Your task to perform on an android device: turn off location Image 0: 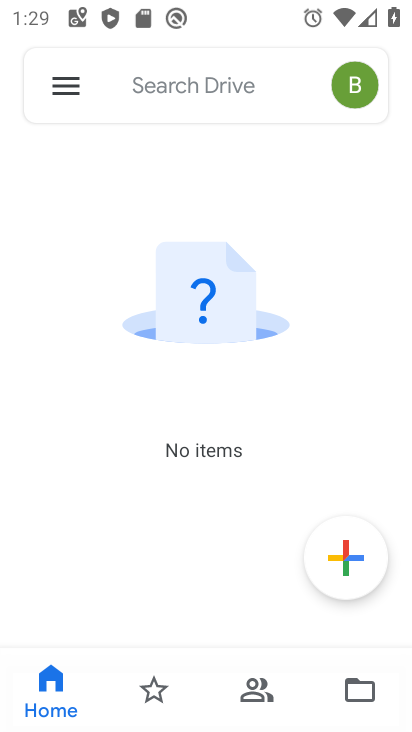
Step 0: press home button
Your task to perform on an android device: turn off location Image 1: 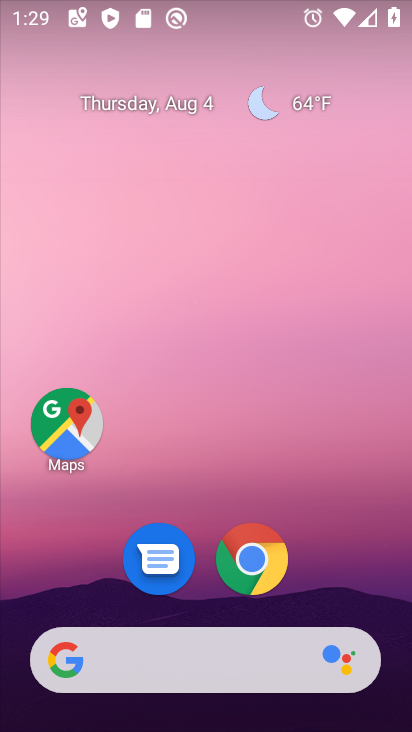
Step 1: drag from (153, 670) to (199, 78)
Your task to perform on an android device: turn off location Image 2: 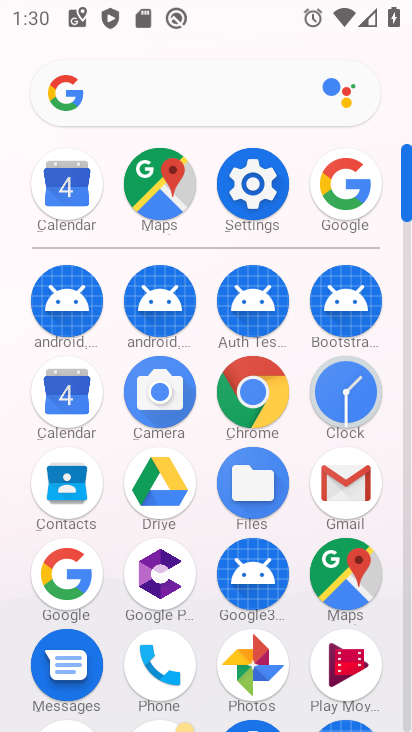
Step 2: click (252, 184)
Your task to perform on an android device: turn off location Image 3: 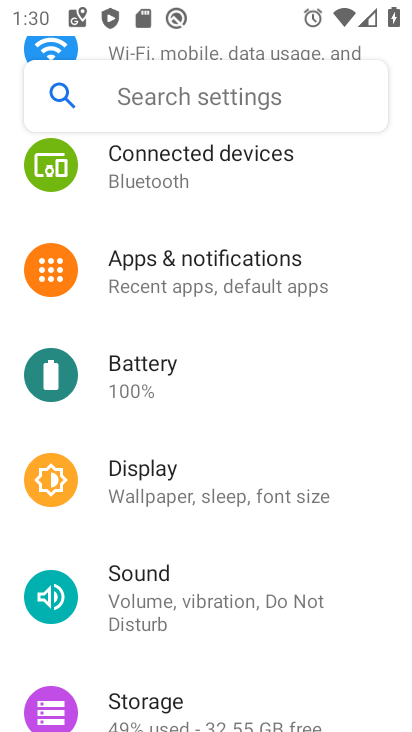
Step 3: drag from (203, 556) to (245, 399)
Your task to perform on an android device: turn off location Image 4: 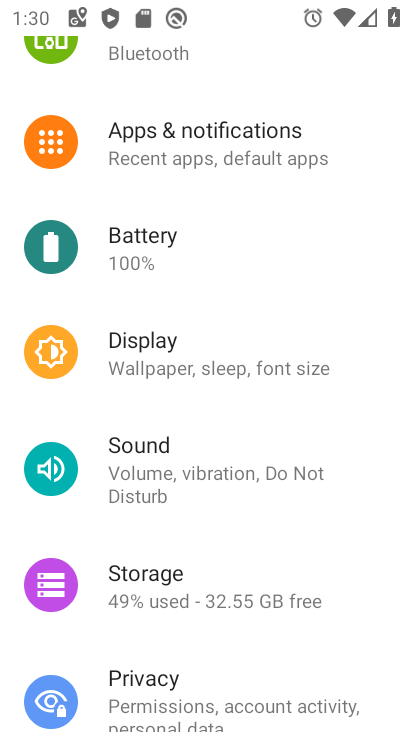
Step 4: drag from (236, 644) to (282, 510)
Your task to perform on an android device: turn off location Image 5: 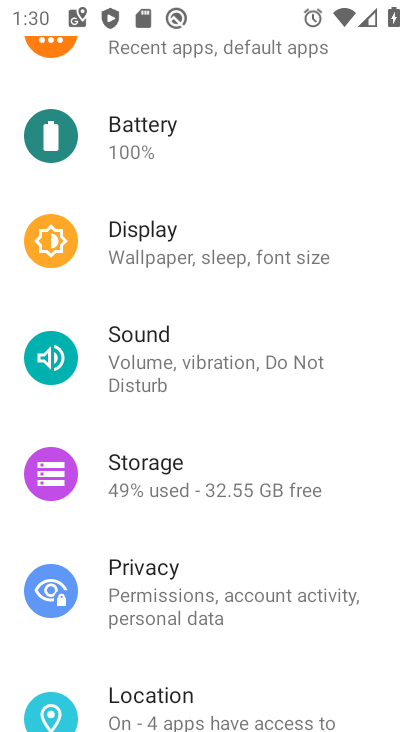
Step 5: drag from (243, 677) to (348, 474)
Your task to perform on an android device: turn off location Image 6: 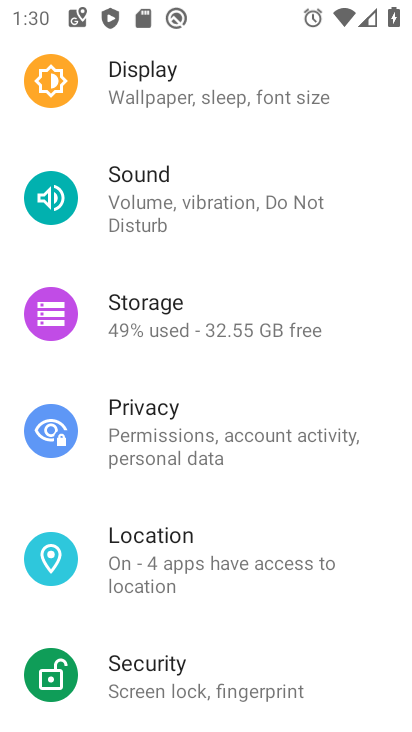
Step 6: click (264, 566)
Your task to perform on an android device: turn off location Image 7: 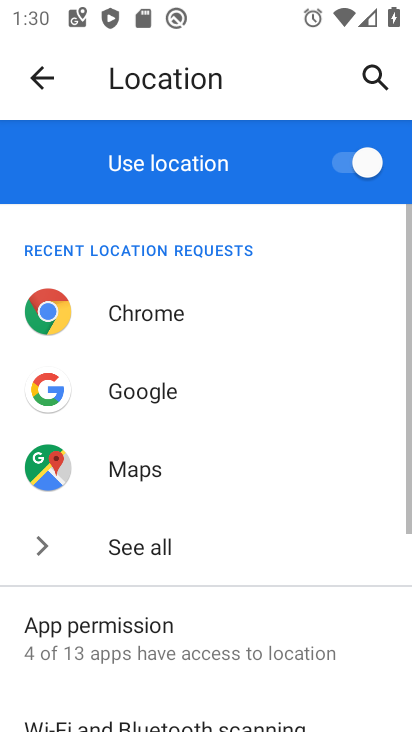
Step 7: click (347, 168)
Your task to perform on an android device: turn off location Image 8: 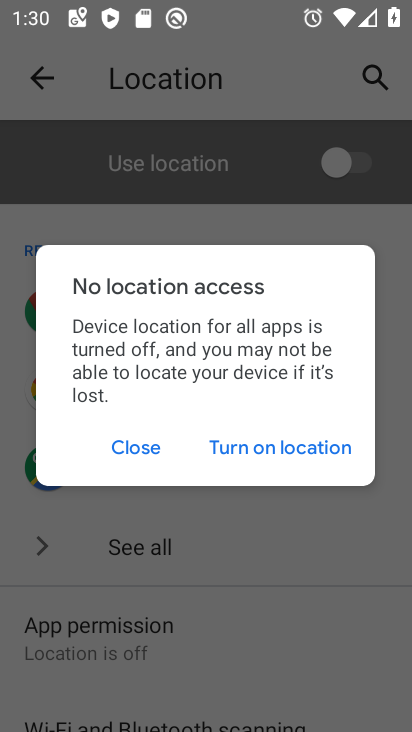
Step 8: click (127, 444)
Your task to perform on an android device: turn off location Image 9: 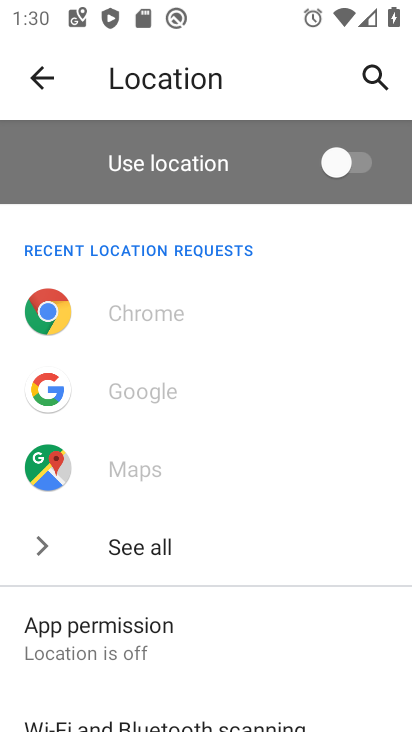
Step 9: task complete